Your task to perform on an android device: toggle show notifications on the lock screen Image 0: 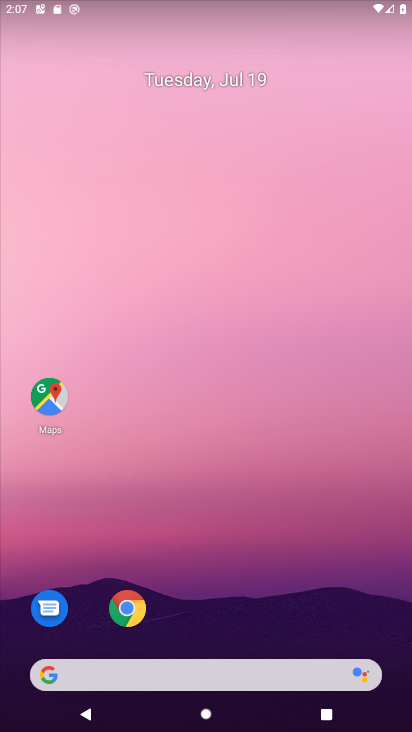
Step 0: drag from (255, 562) to (280, 129)
Your task to perform on an android device: toggle show notifications on the lock screen Image 1: 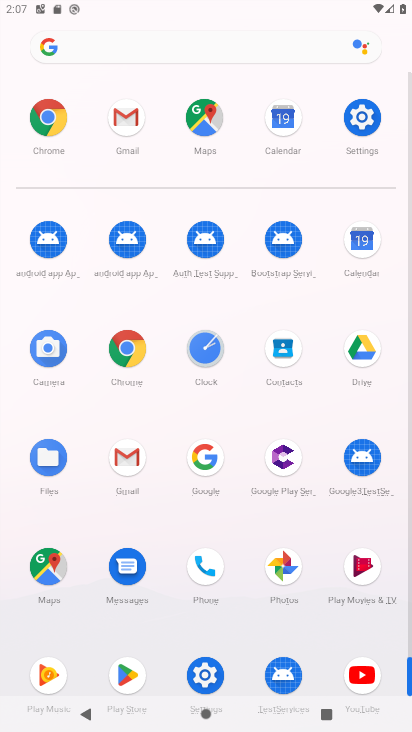
Step 1: drag from (156, 202) to (173, 48)
Your task to perform on an android device: toggle show notifications on the lock screen Image 2: 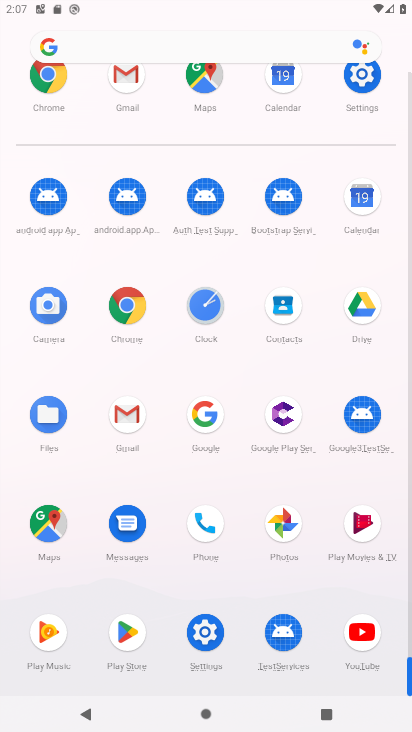
Step 2: click (204, 636)
Your task to perform on an android device: toggle show notifications on the lock screen Image 3: 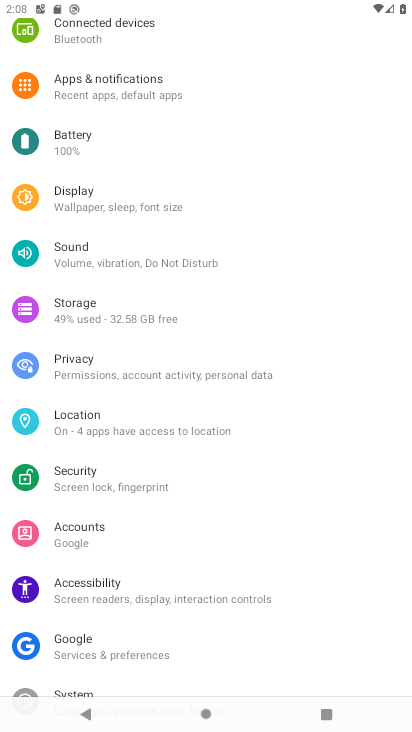
Step 3: drag from (168, 496) to (218, 599)
Your task to perform on an android device: toggle show notifications on the lock screen Image 4: 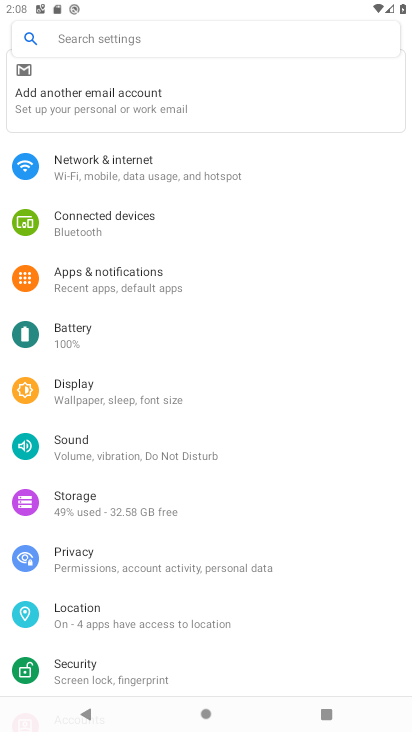
Step 4: click (144, 274)
Your task to perform on an android device: toggle show notifications on the lock screen Image 5: 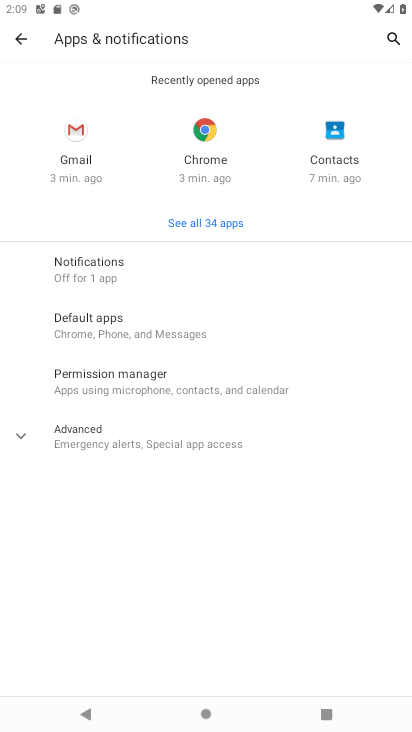
Step 5: click (132, 442)
Your task to perform on an android device: toggle show notifications on the lock screen Image 6: 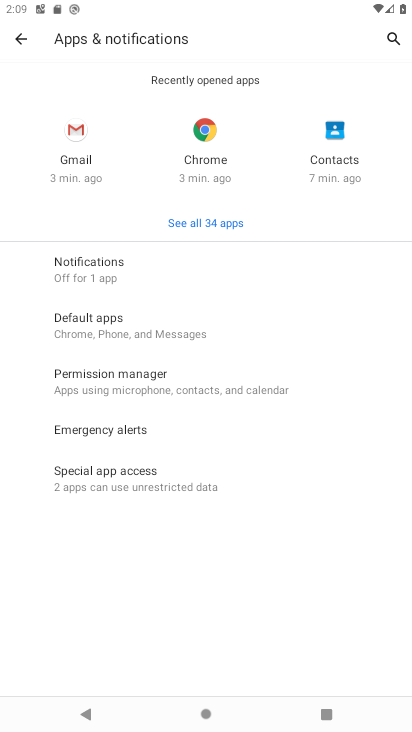
Step 6: click (173, 281)
Your task to perform on an android device: toggle show notifications on the lock screen Image 7: 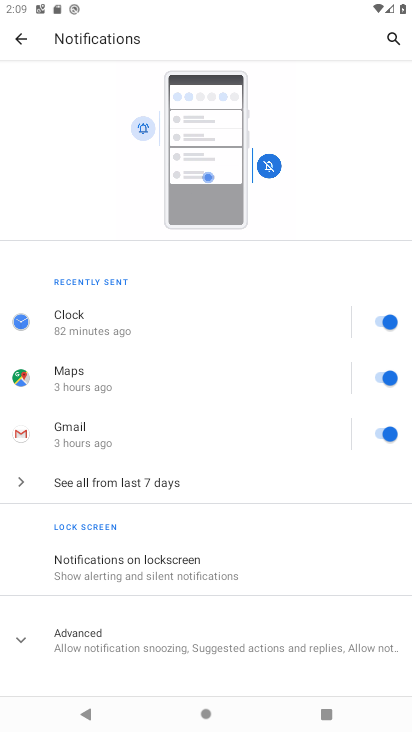
Step 7: drag from (152, 572) to (173, 337)
Your task to perform on an android device: toggle show notifications on the lock screen Image 8: 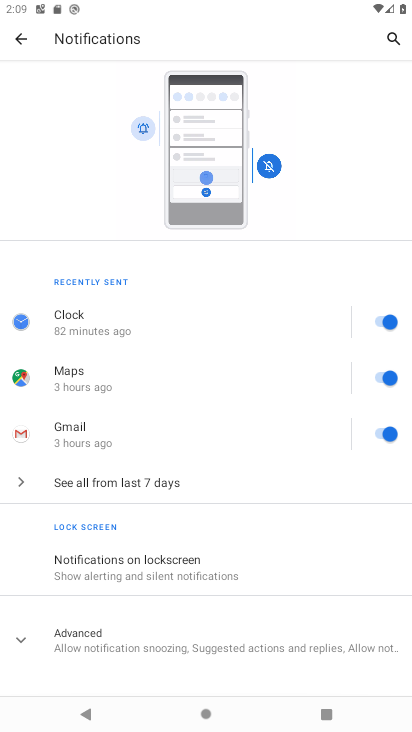
Step 8: click (142, 569)
Your task to perform on an android device: toggle show notifications on the lock screen Image 9: 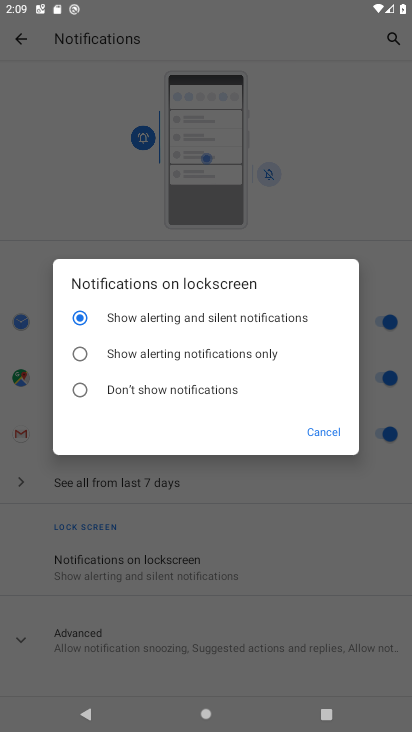
Step 9: task complete